Your task to perform on an android device: turn notification dots off Image 0: 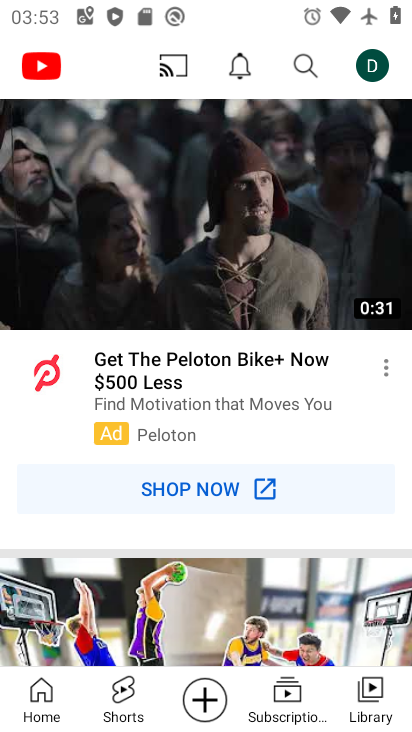
Step 0: press home button
Your task to perform on an android device: turn notification dots off Image 1: 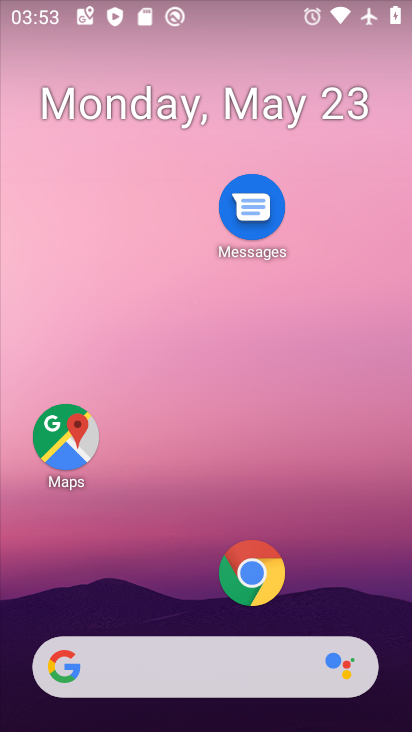
Step 1: drag from (205, 624) to (171, 20)
Your task to perform on an android device: turn notification dots off Image 2: 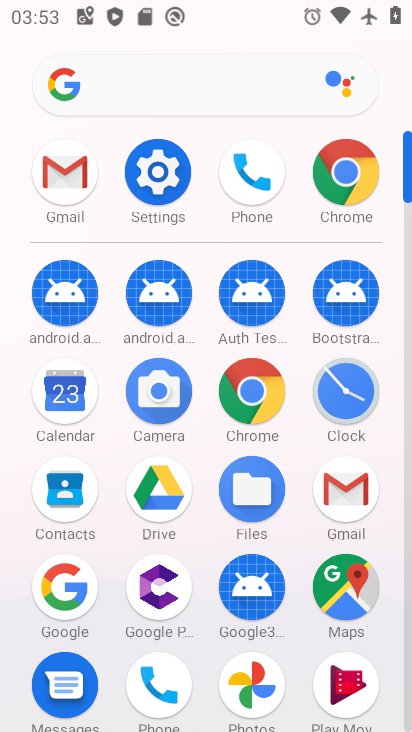
Step 2: click (163, 155)
Your task to perform on an android device: turn notification dots off Image 3: 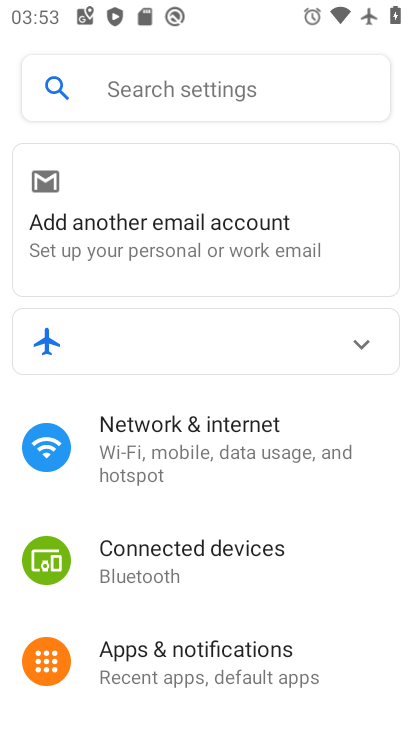
Step 3: click (222, 661)
Your task to perform on an android device: turn notification dots off Image 4: 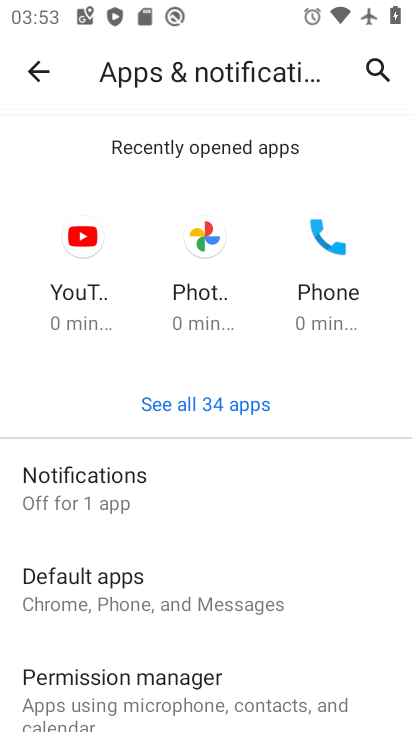
Step 4: drag from (236, 671) to (246, 300)
Your task to perform on an android device: turn notification dots off Image 5: 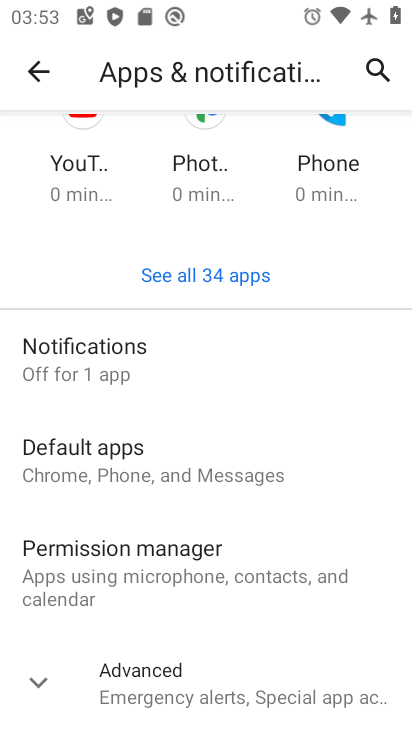
Step 5: click (120, 379)
Your task to perform on an android device: turn notification dots off Image 6: 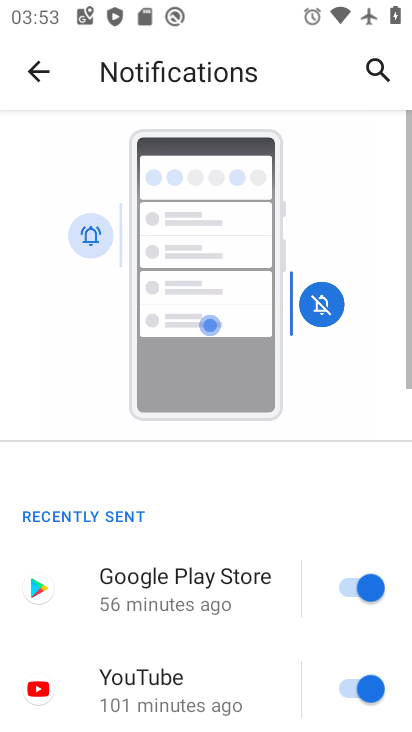
Step 6: drag from (202, 619) to (174, 89)
Your task to perform on an android device: turn notification dots off Image 7: 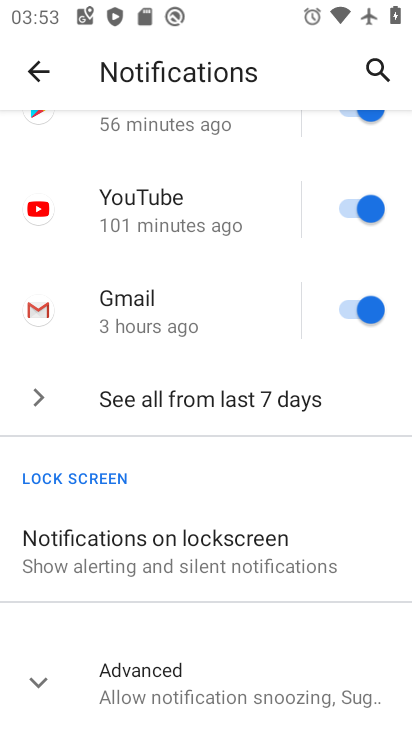
Step 7: click (171, 690)
Your task to perform on an android device: turn notification dots off Image 8: 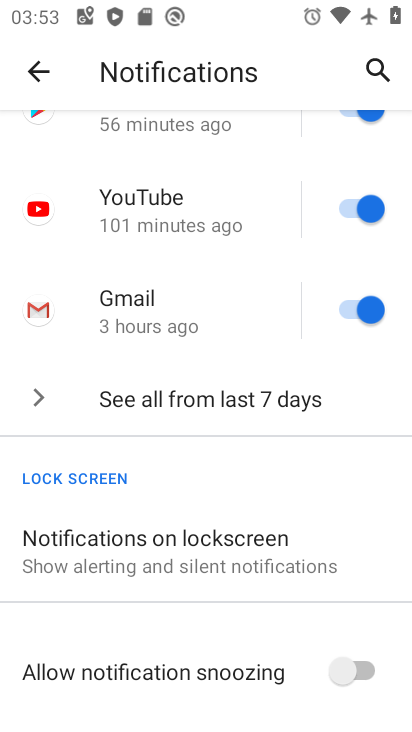
Step 8: drag from (225, 591) to (185, 135)
Your task to perform on an android device: turn notification dots off Image 9: 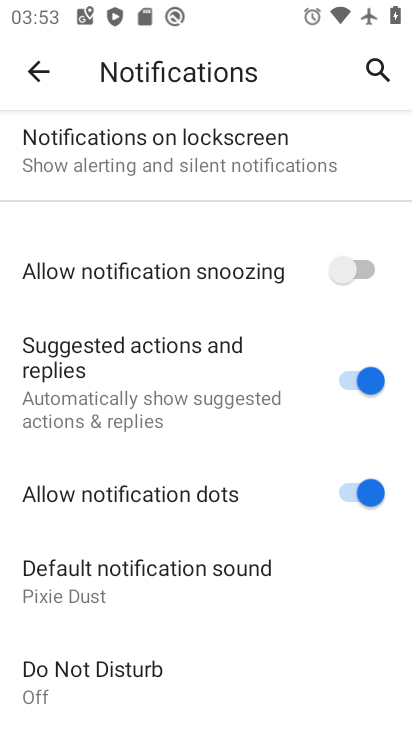
Step 9: click (357, 486)
Your task to perform on an android device: turn notification dots off Image 10: 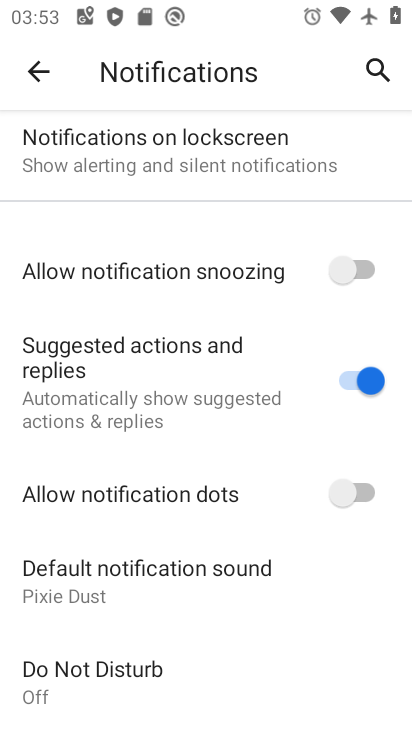
Step 10: task complete